Your task to perform on an android device: add a label to a message in the gmail app Image 0: 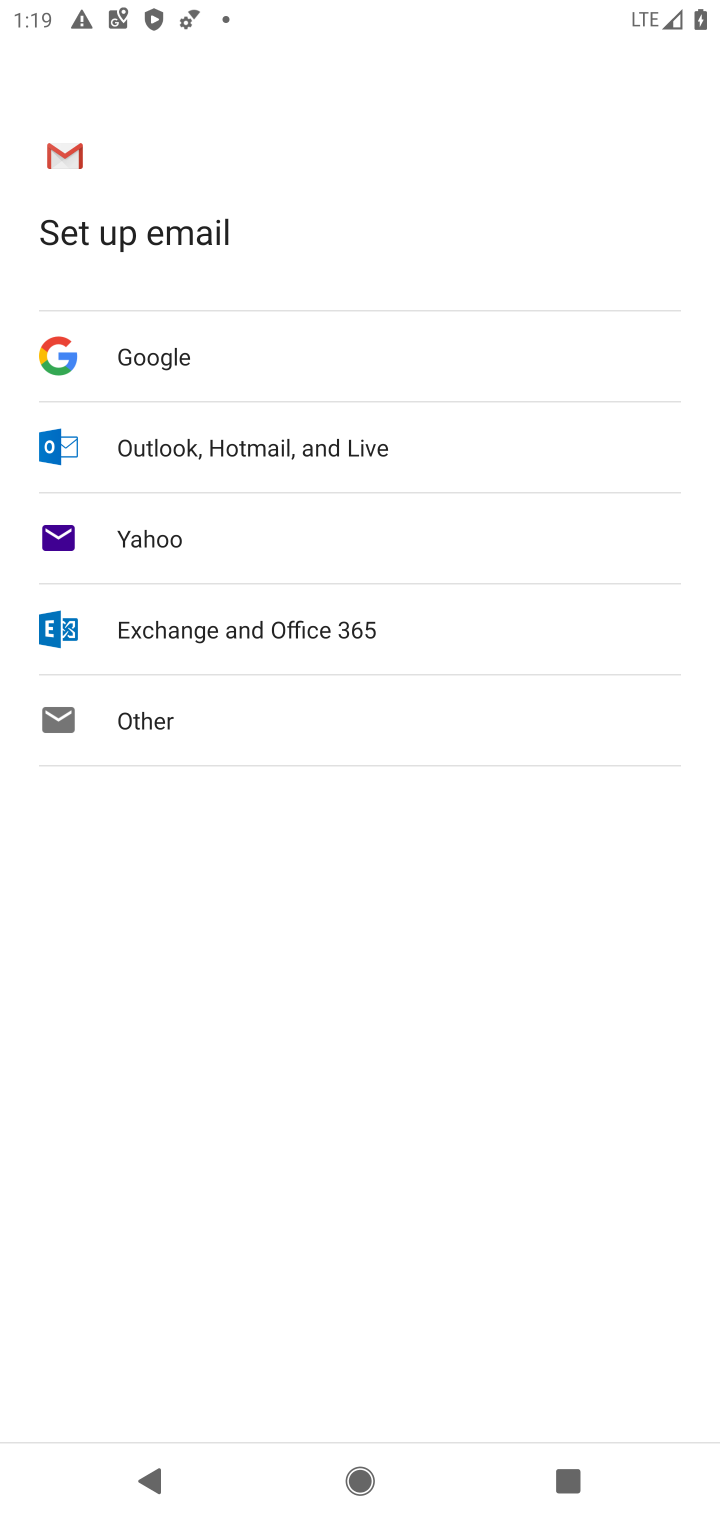
Step 0: press back button
Your task to perform on an android device: add a label to a message in the gmail app Image 1: 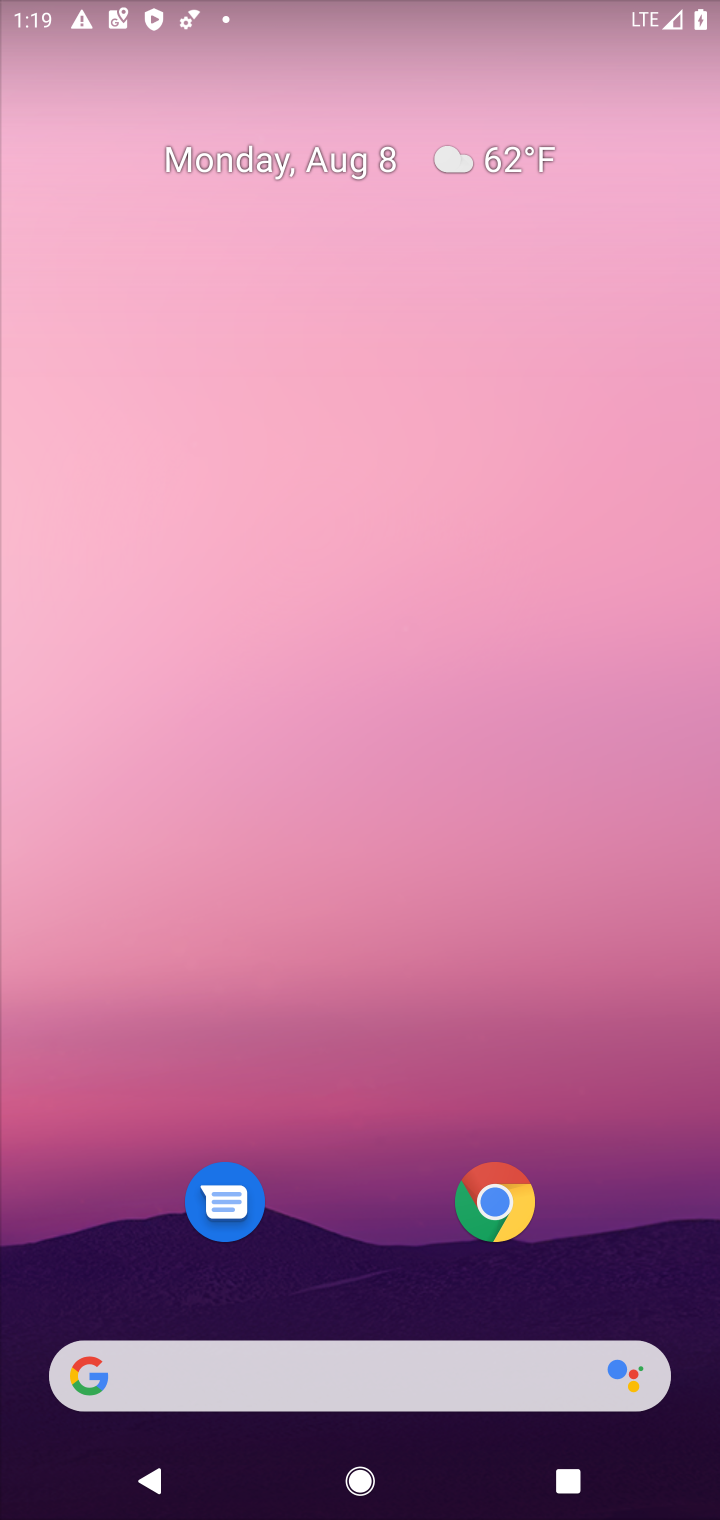
Step 1: drag from (340, 659) to (420, 57)
Your task to perform on an android device: add a label to a message in the gmail app Image 2: 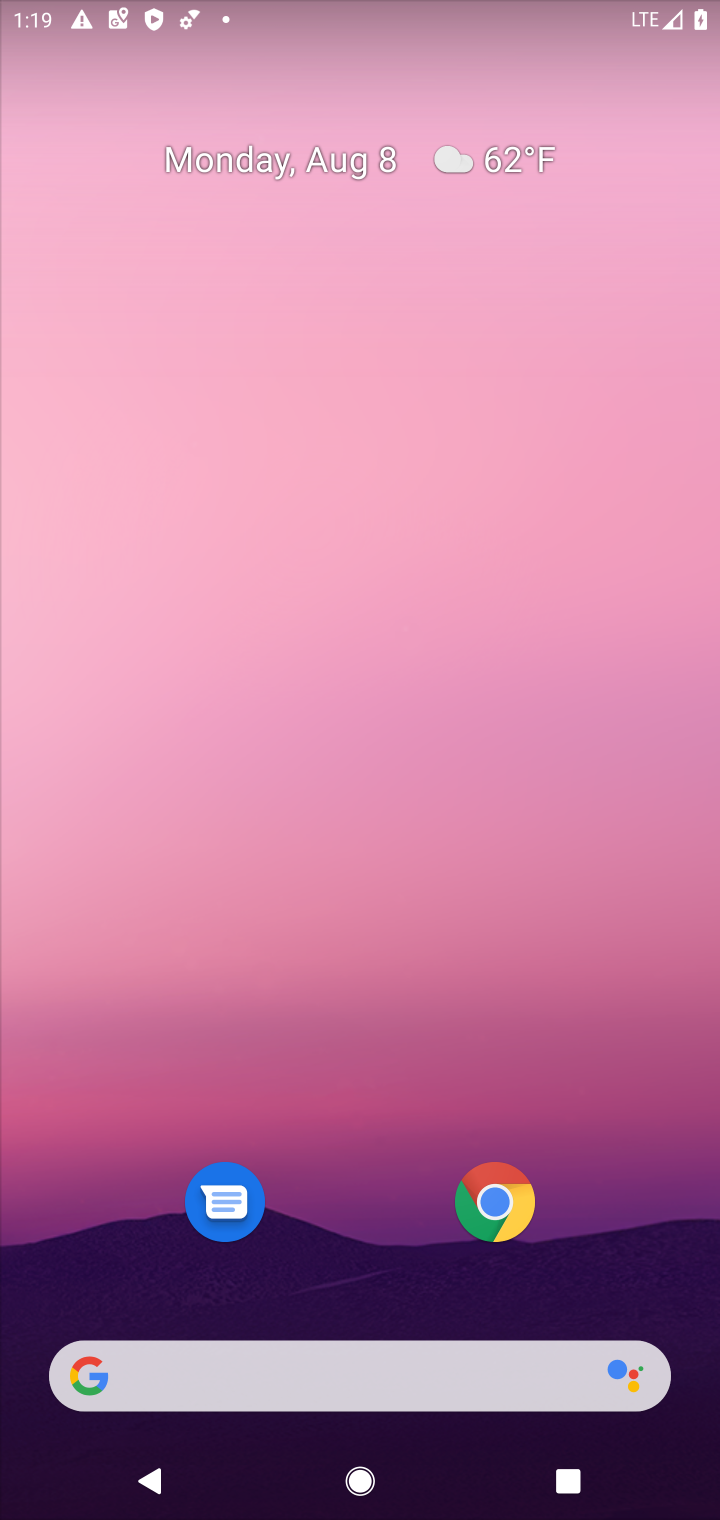
Step 2: drag from (295, 151) to (297, 60)
Your task to perform on an android device: add a label to a message in the gmail app Image 3: 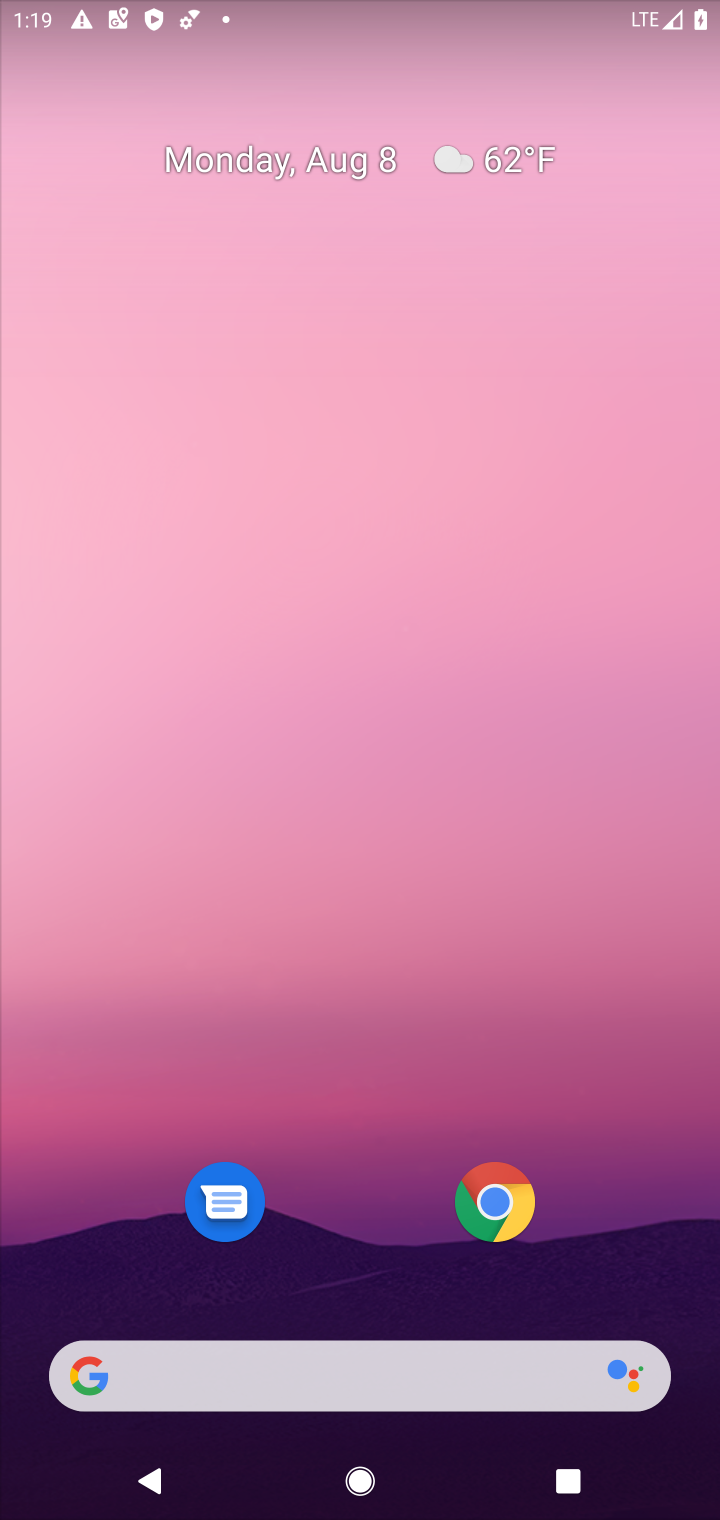
Step 3: drag from (299, 1150) to (408, 155)
Your task to perform on an android device: add a label to a message in the gmail app Image 4: 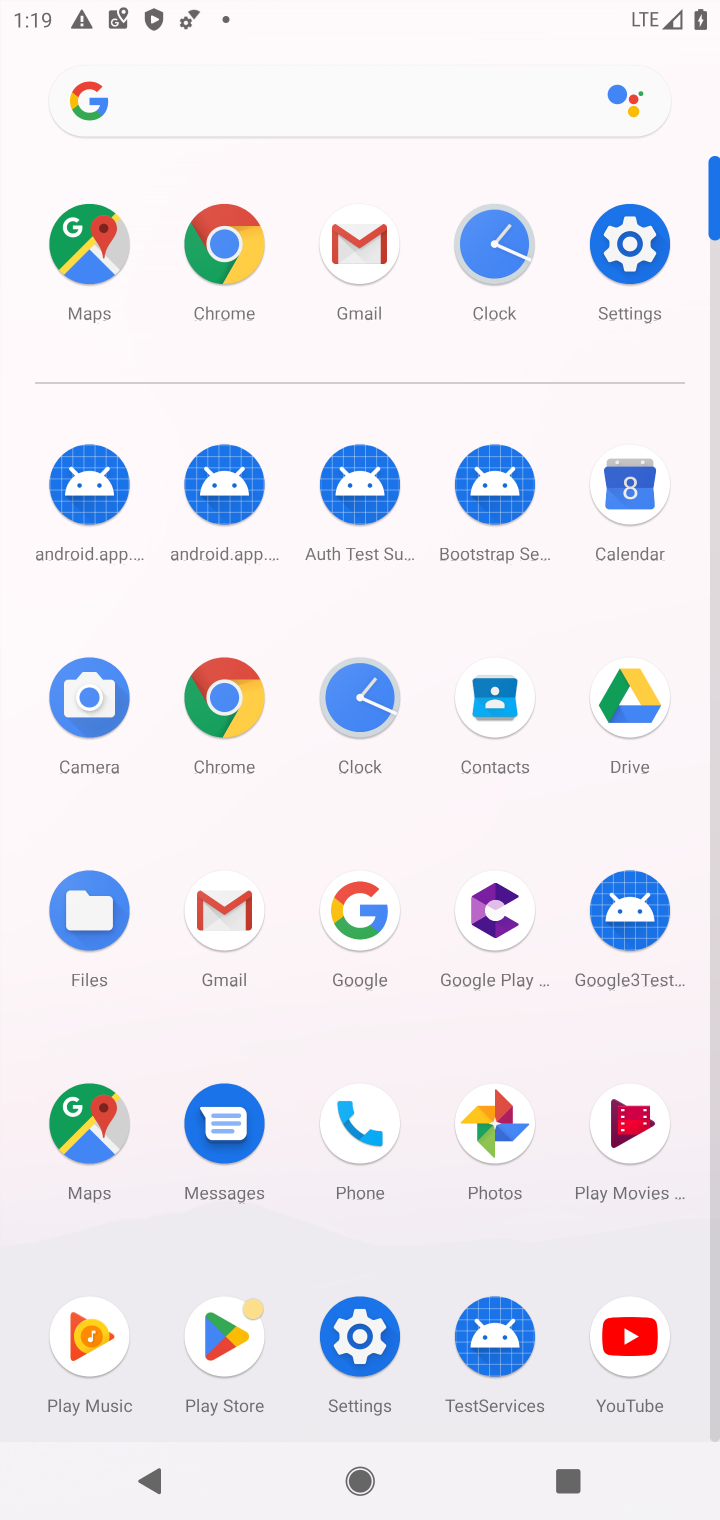
Step 4: click (366, 243)
Your task to perform on an android device: add a label to a message in the gmail app Image 5: 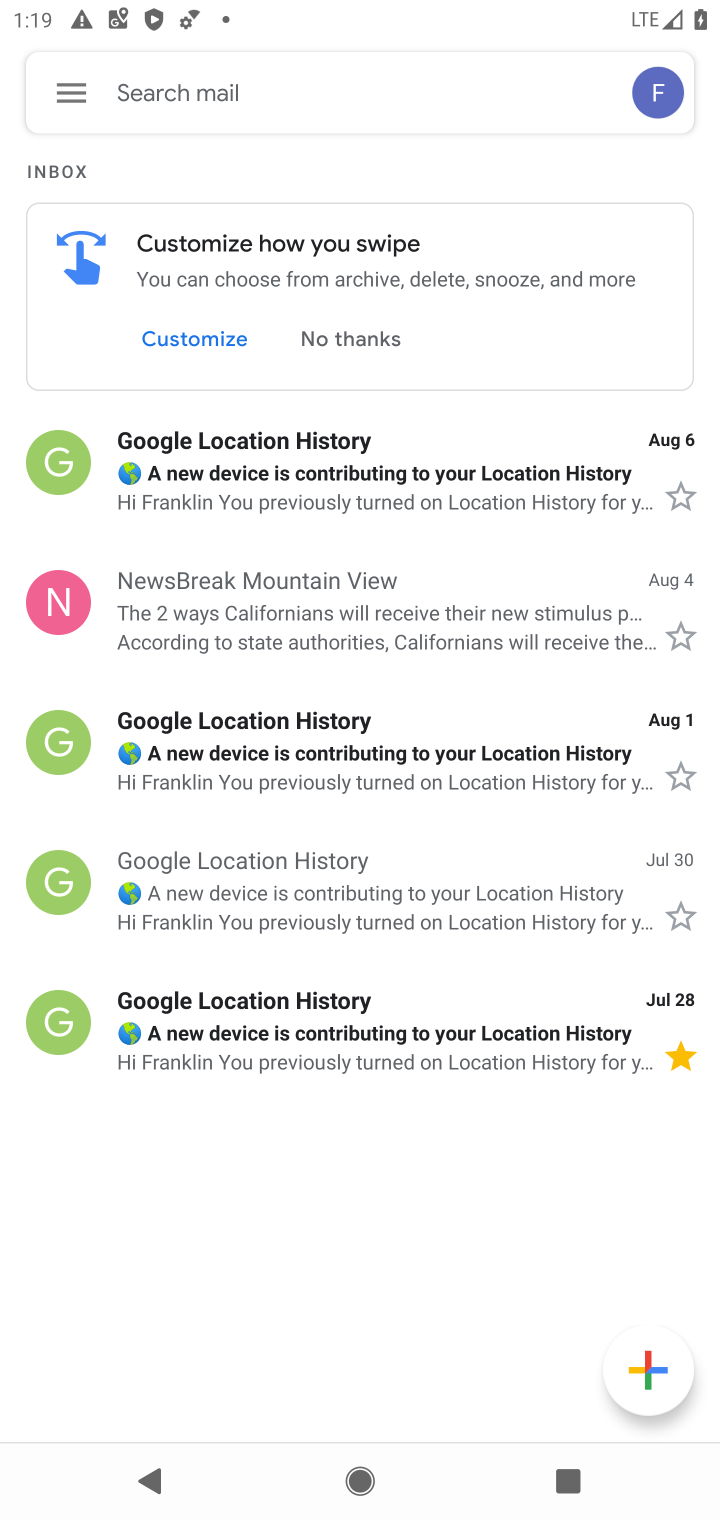
Step 5: click (58, 87)
Your task to perform on an android device: add a label to a message in the gmail app Image 6: 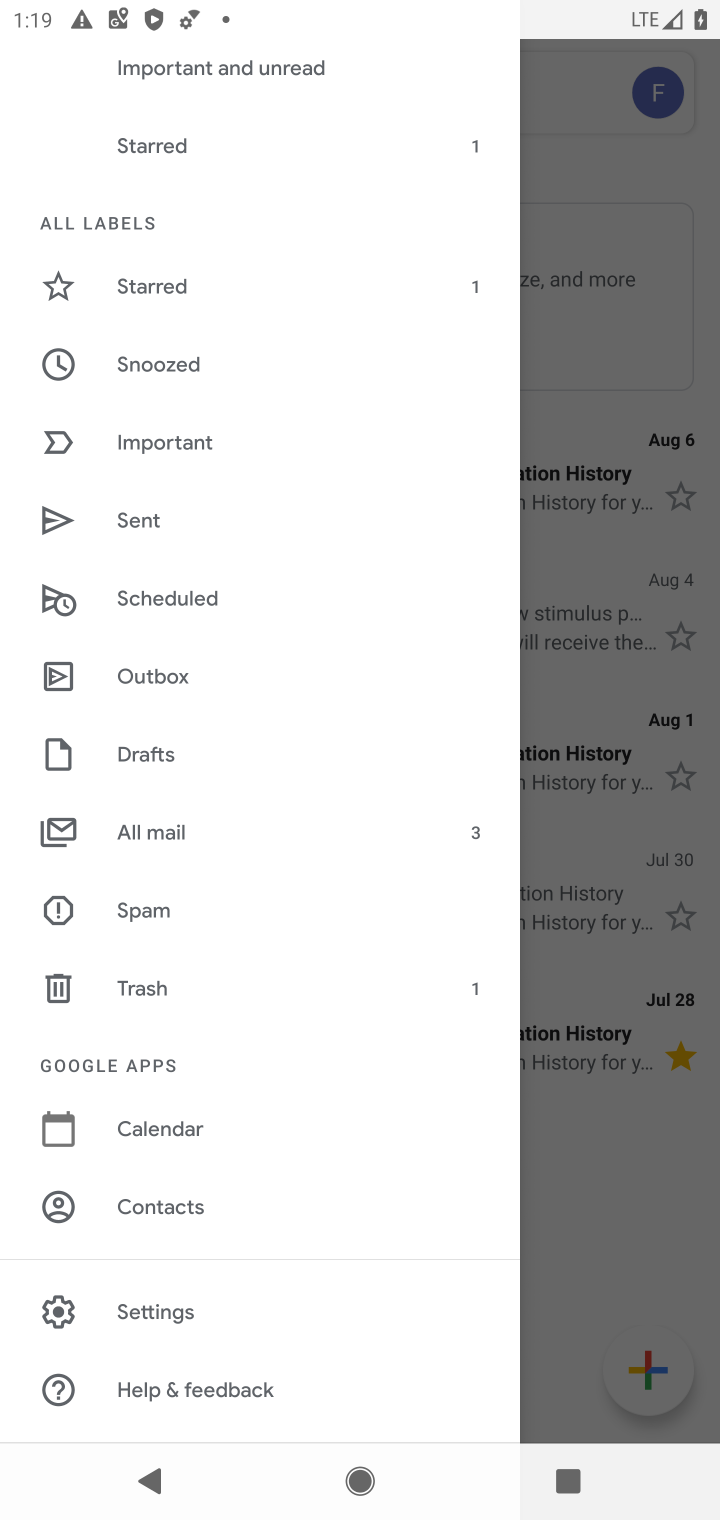
Step 6: press back button
Your task to perform on an android device: add a label to a message in the gmail app Image 7: 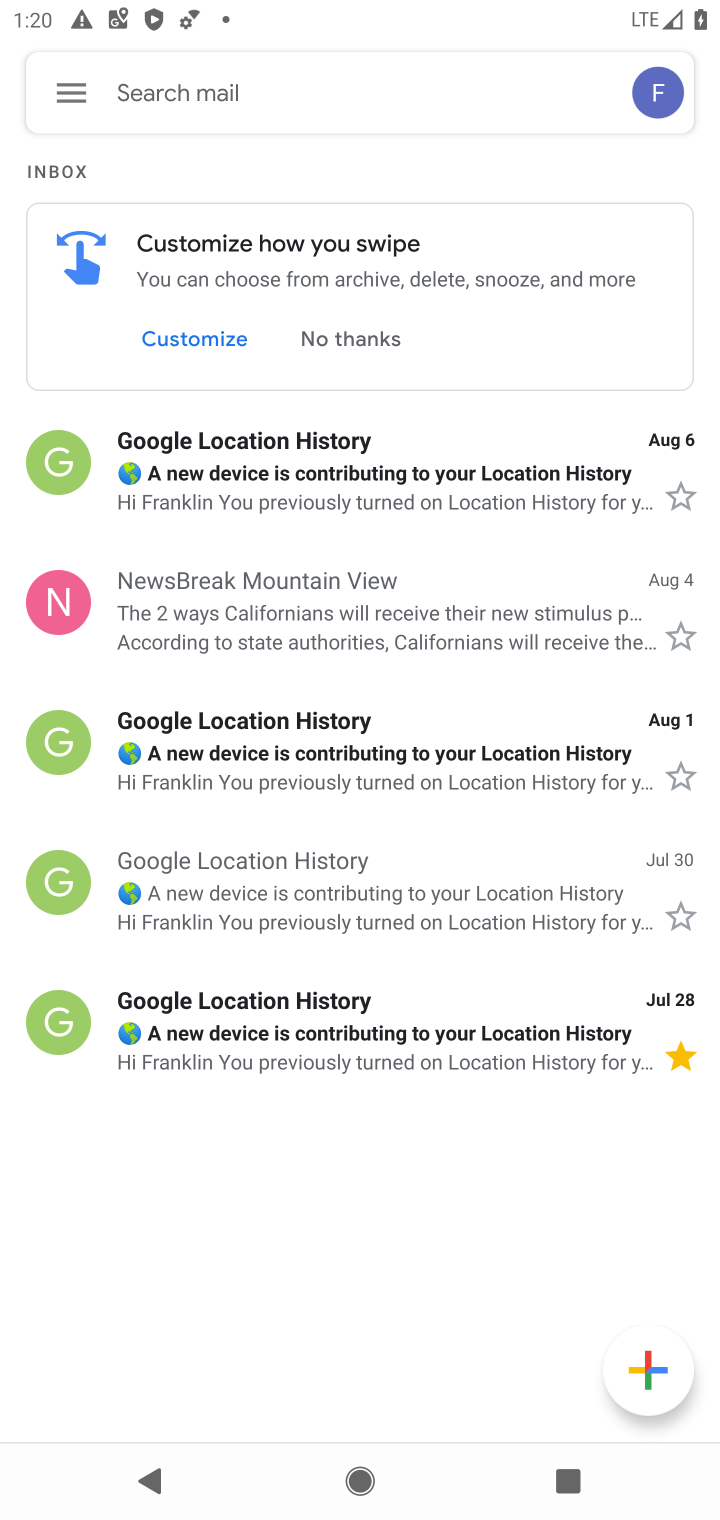
Step 7: click (406, 473)
Your task to perform on an android device: add a label to a message in the gmail app Image 8: 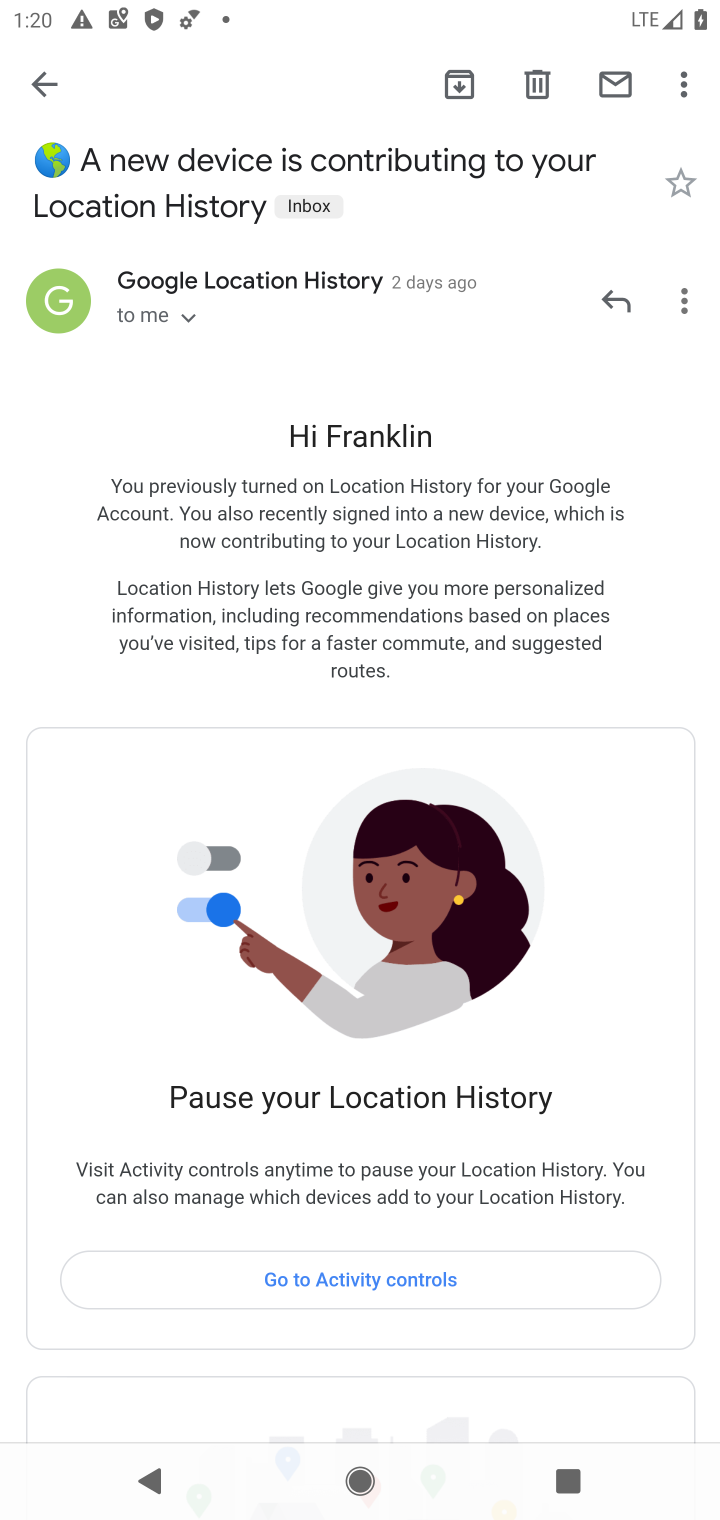
Step 8: click (315, 224)
Your task to perform on an android device: add a label to a message in the gmail app Image 9: 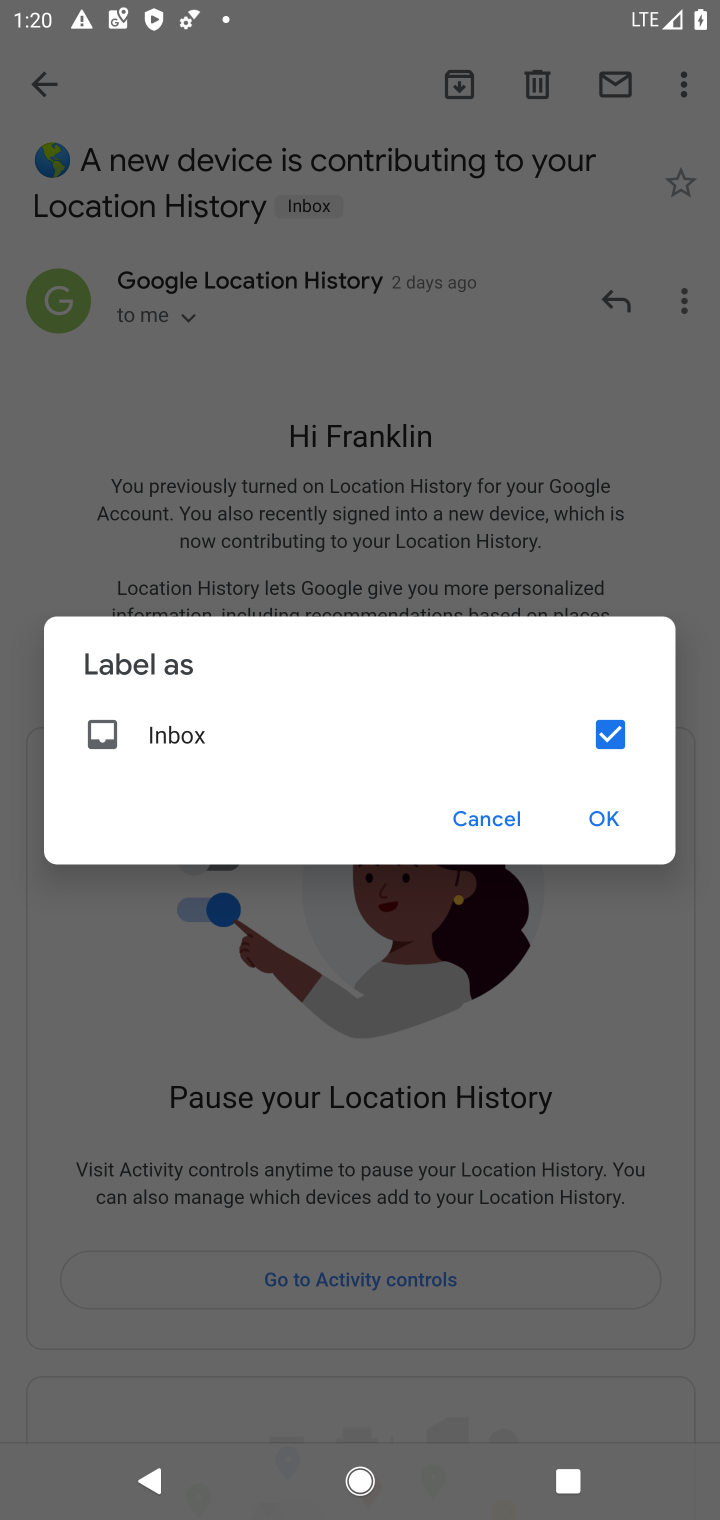
Step 9: click (605, 719)
Your task to perform on an android device: add a label to a message in the gmail app Image 10: 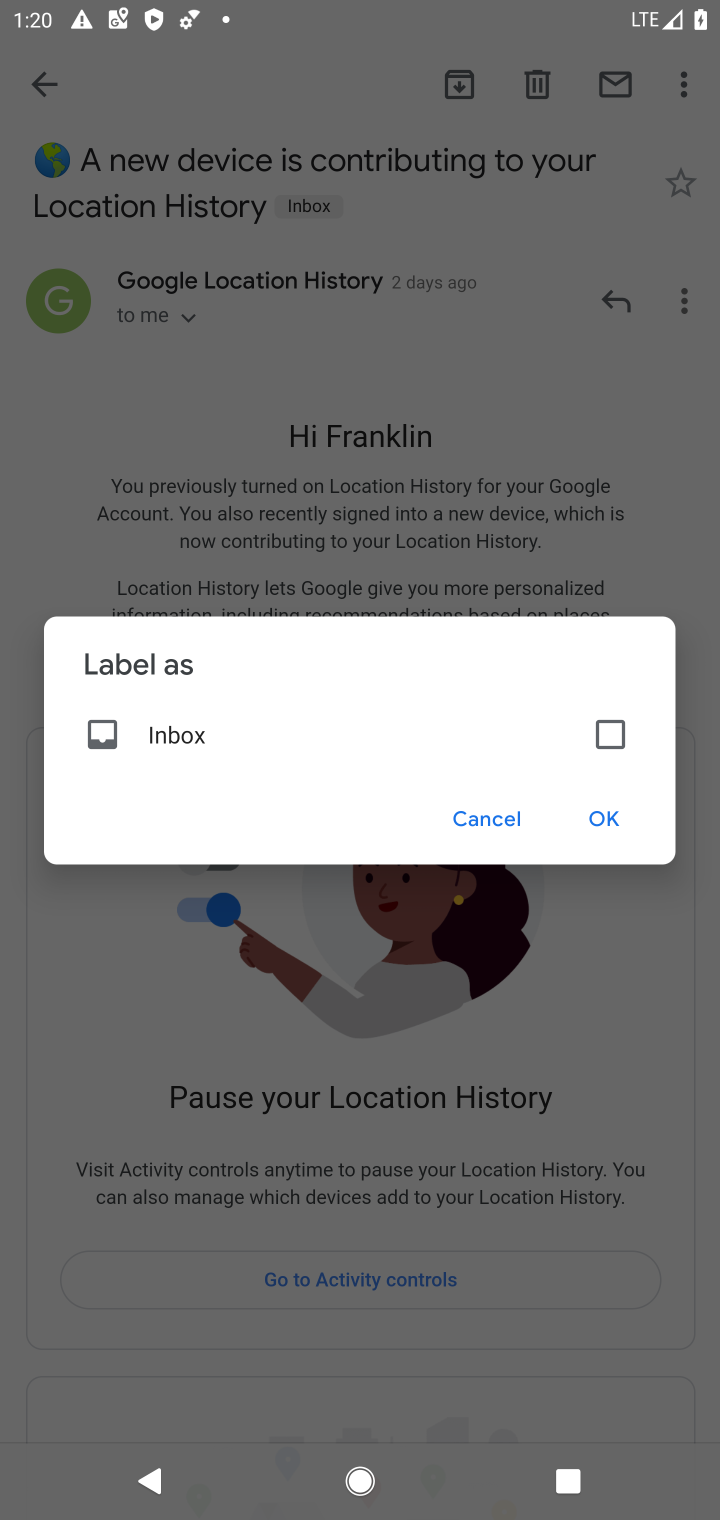
Step 10: click (607, 737)
Your task to perform on an android device: add a label to a message in the gmail app Image 11: 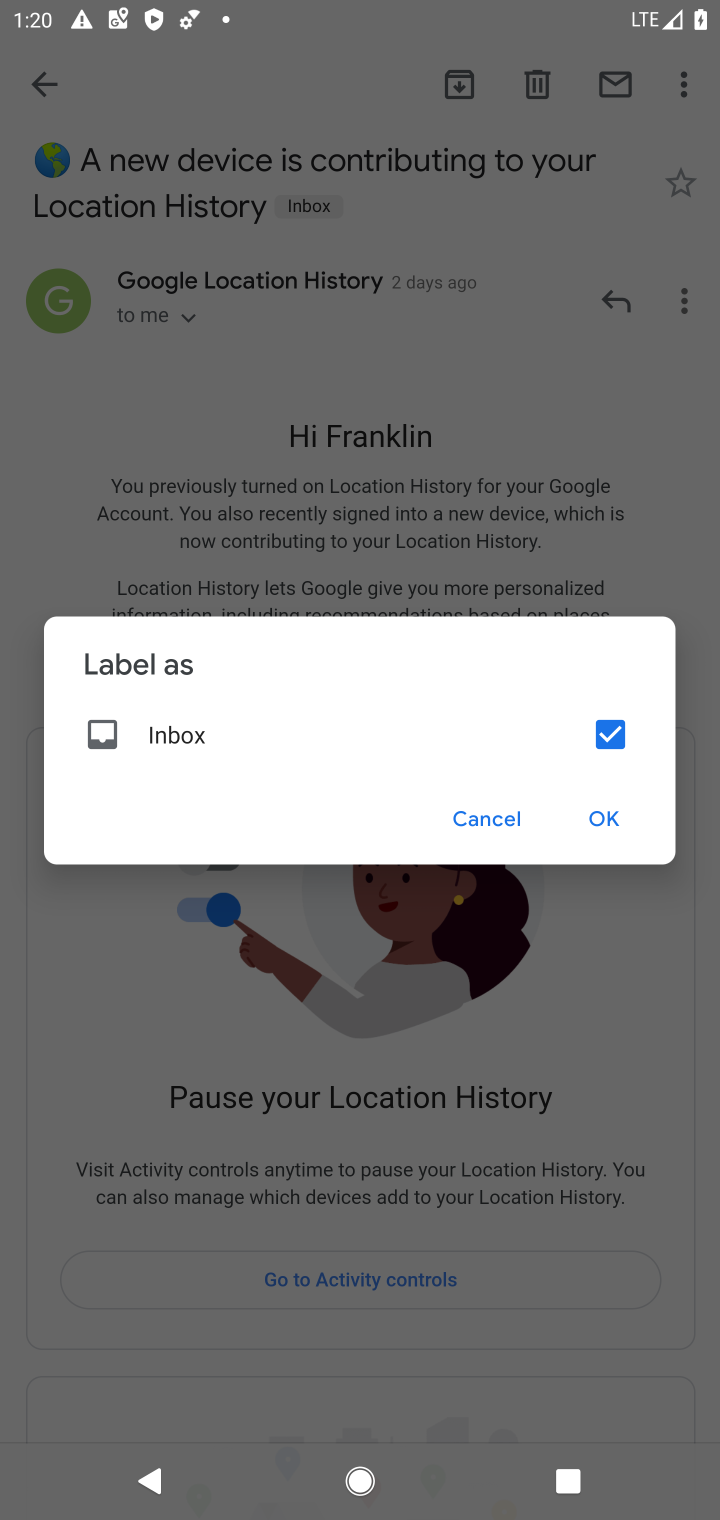
Step 11: click (606, 816)
Your task to perform on an android device: add a label to a message in the gmail app Image 12: 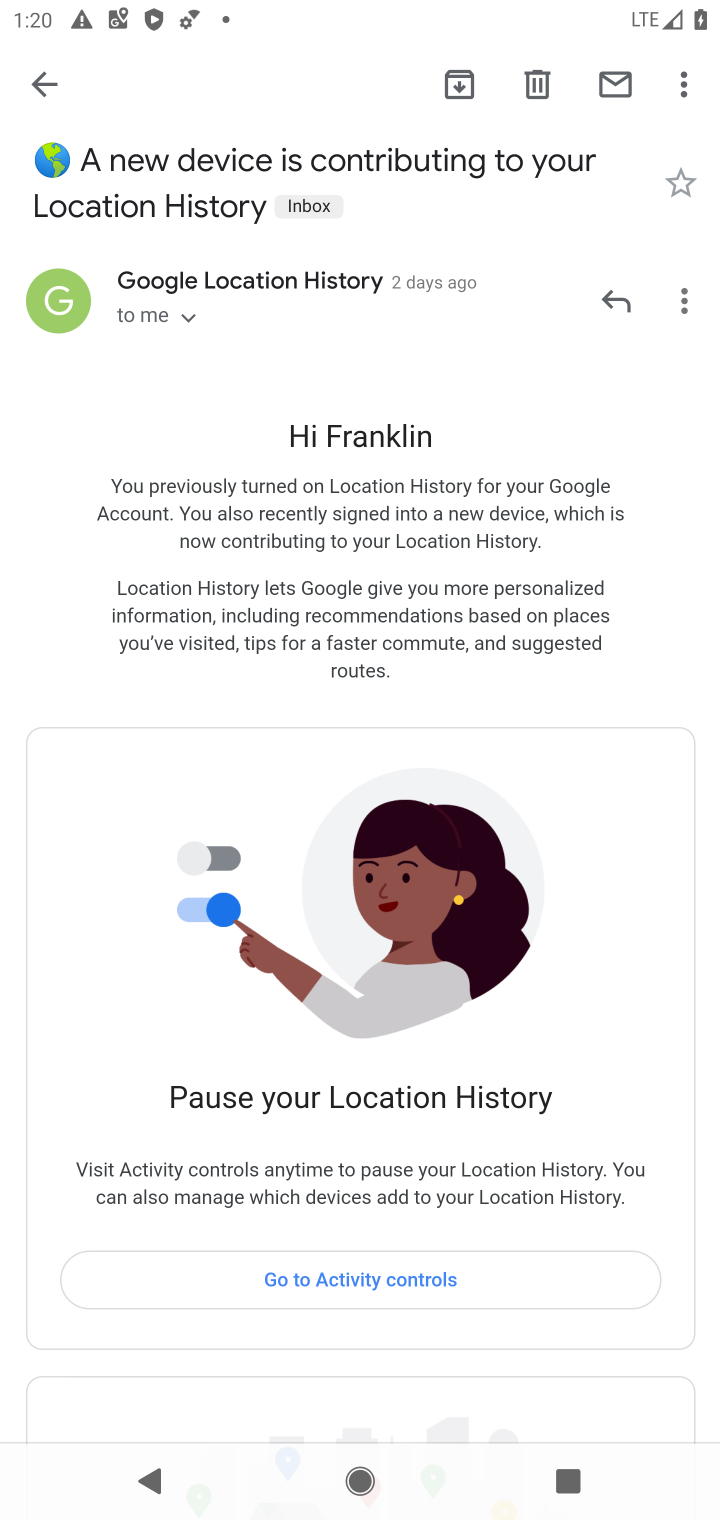
Step 12: task complete